Your task to perform on an android device: change text size in settings app Image 0: 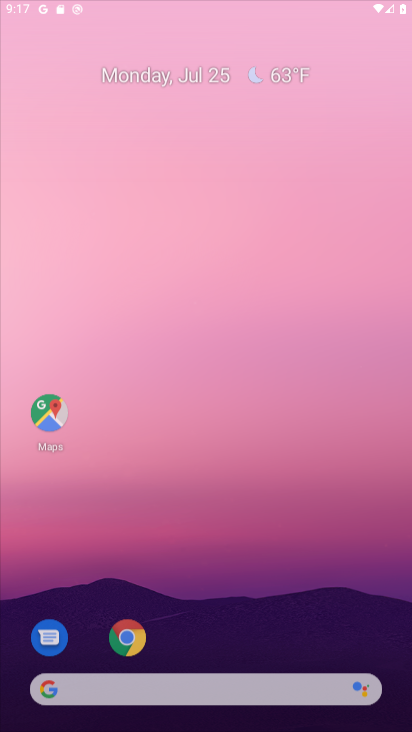
Step 0: click (209, 24)
Your task to perform on an android device: change text size in settings app Image 1: 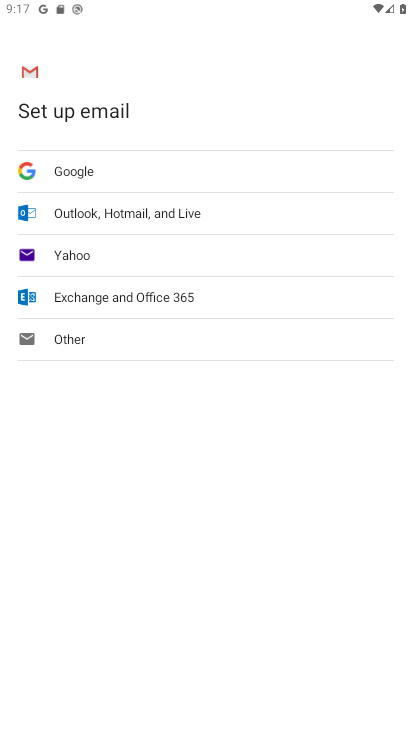
Step 1: press back button
Your task to perform on an android device: change text size in settings app Image 2: 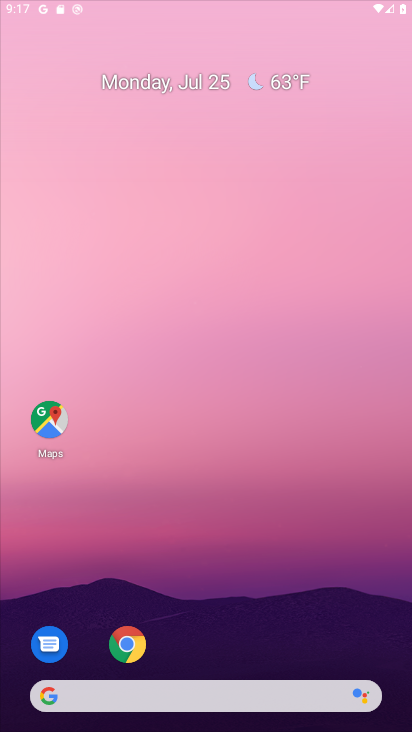
Step 2: drag from (307, 308) to (301, 51)
Your task to perform on an android device: change text size in settings app Image 3: 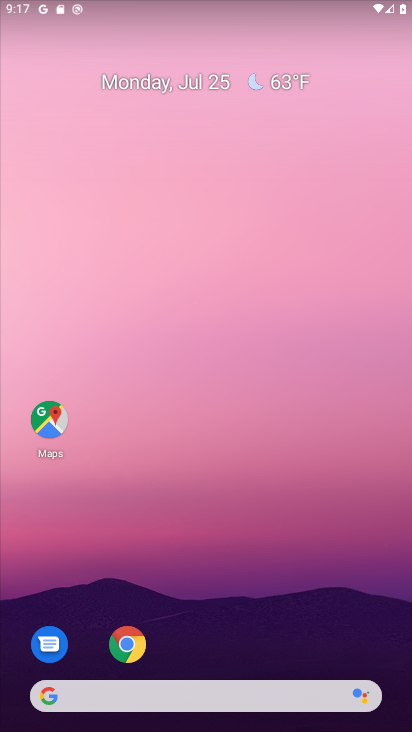
Step 3: drag from (274, 634) to (262, 53)
Your task to perform on an android device: change text size in settings app Image 4: 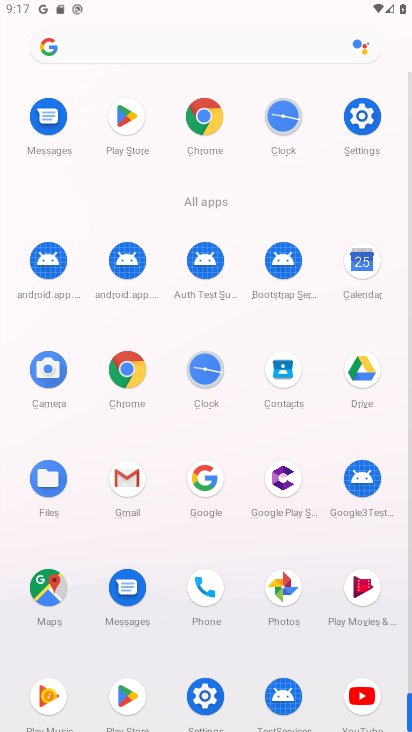
Step 4: click (44, 582)
Your task to perform on an android device: change text size in settings app Image 5: 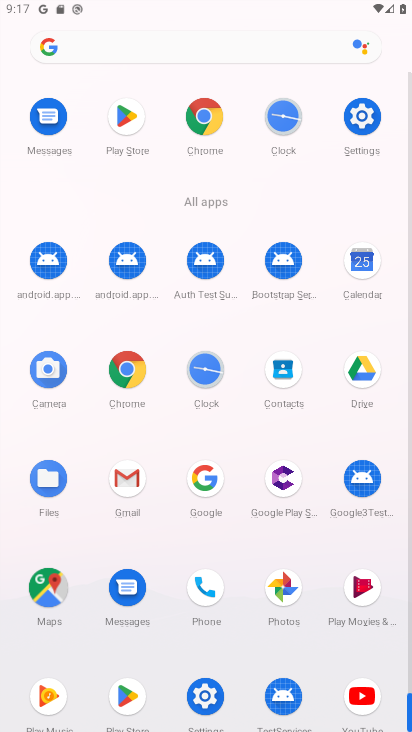
Step 5: click (44, 582)
Your task to perform on an android device: change text size in settings app Image 6: 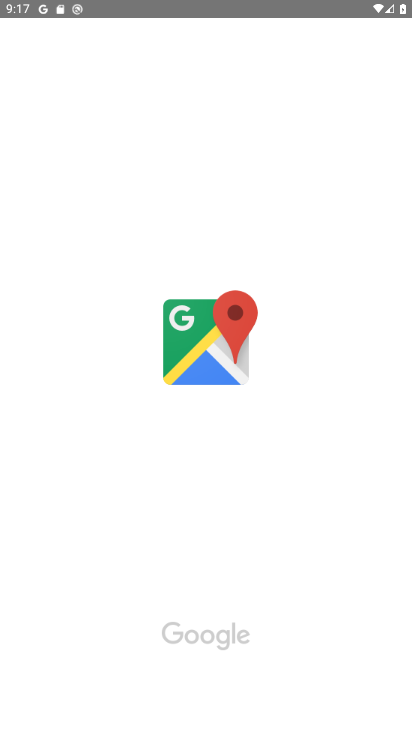
Step 6: press back button
Your task to perform on an android device: change text size in settings app Image 7: 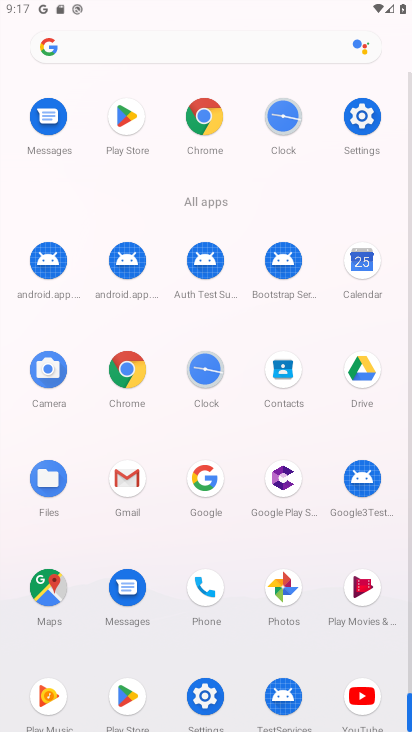
Step 7: click (361, 117)
Your task to perform on an android device: change text size in settings app Image 8: 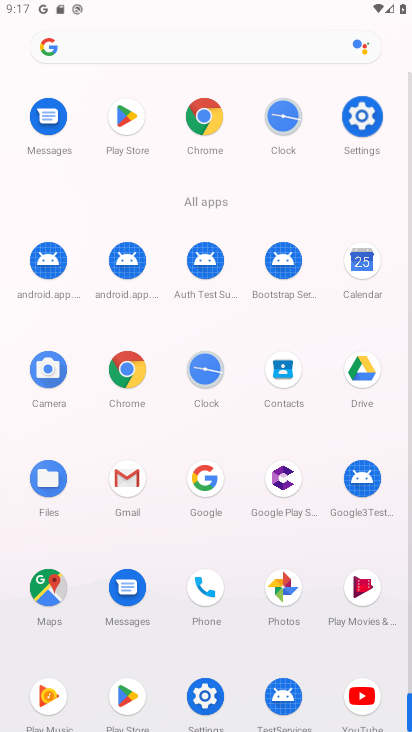
Step 8: click (364, 115)
Your task to perform on an android device: change text size in settings app Image 9: 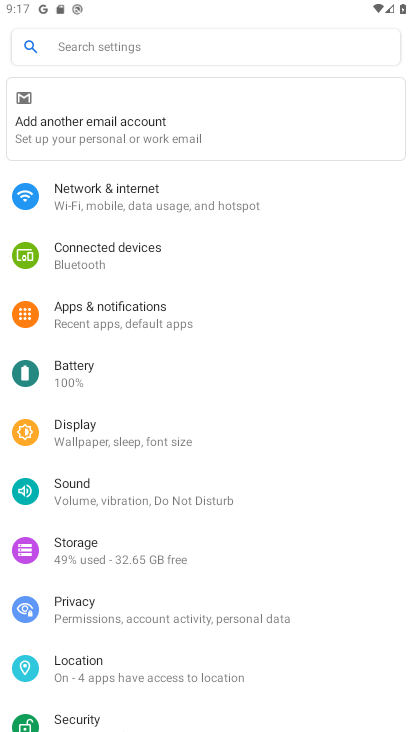
Step 9: click (91, 441)
Your task to perform on an android device: change text size in settings app Image 10: 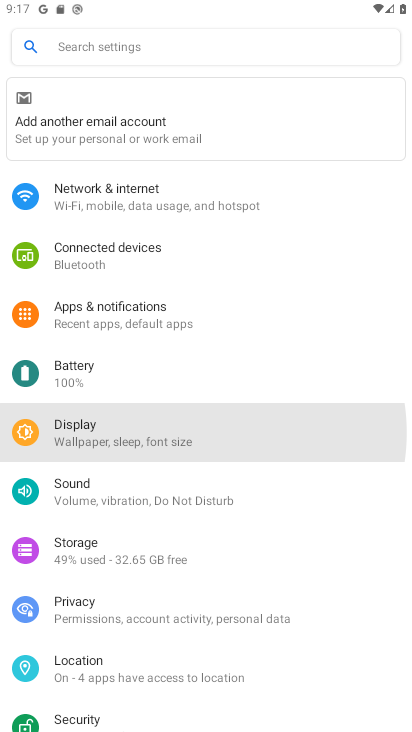
Step 10: click (91, 442)
Your task to perform on an android device: change text size in settings app Image 11: 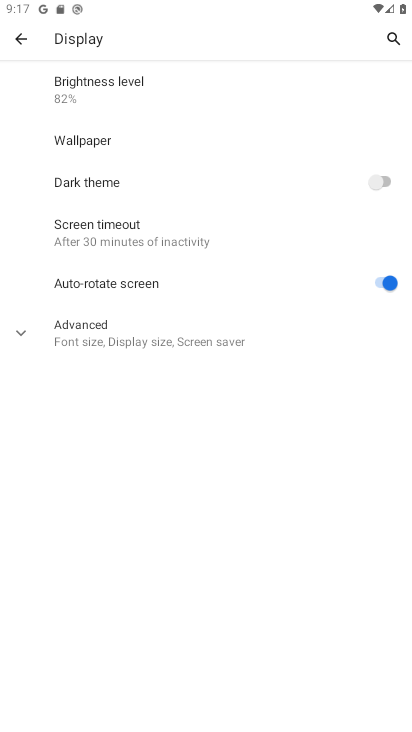
Step 11: click (122, 338)
Your task to perform on an android device: change text size in settings app Image 12: 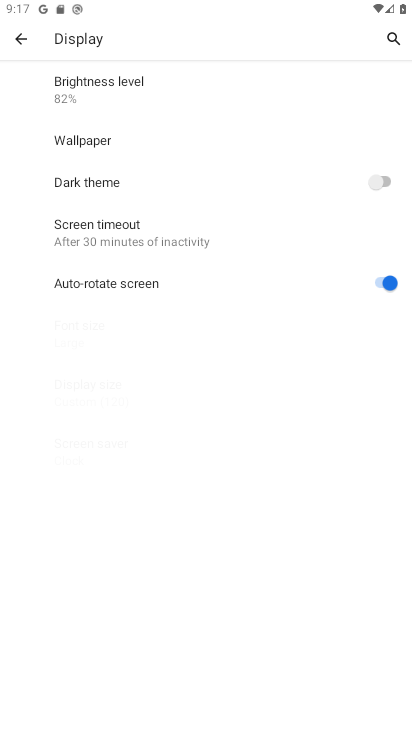
Step 12: click (122, 337)
Your task to perform on an android device: change text size in settings app Image 13: 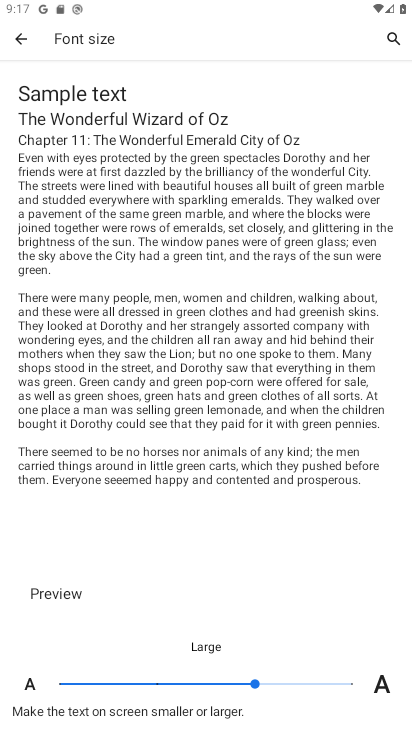
Step 13: click (343, 676)
Your task to perform on an android device: change text size in settings app Image 14: 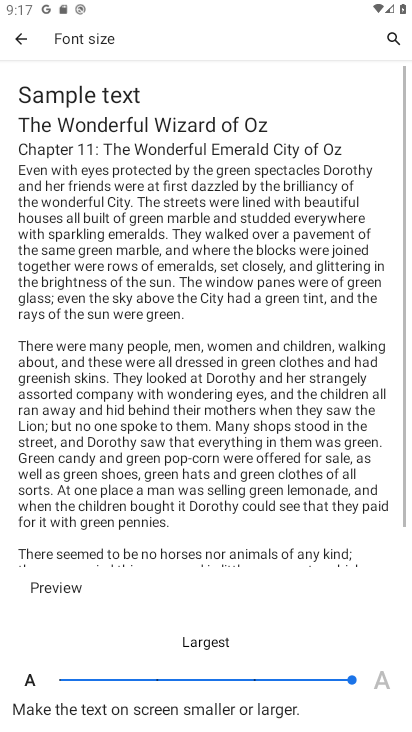
Step 14: task complete